Your task to perform on an android device: Open Chrome and go to the settings page Image 0: 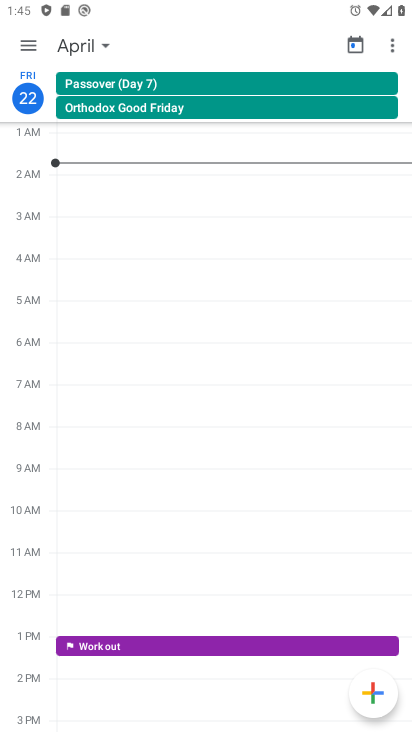
Step 0: press home button
Your task to perform on an android device: Open Chrome and go to the settings page Image 1: 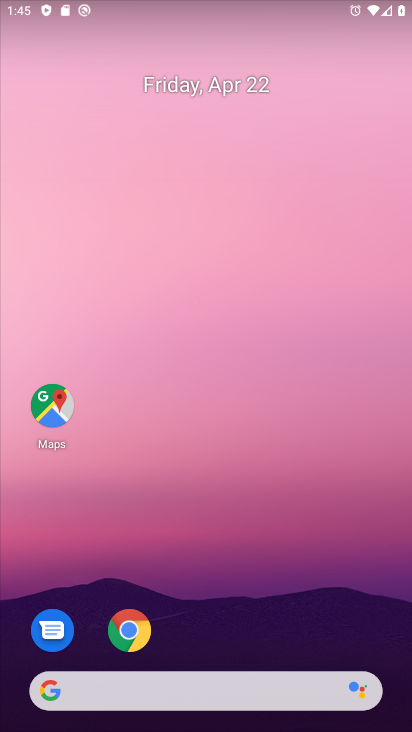
Step 1: drag from (367, 438) to (314, 155)
Your task to perform on an android device: Open Chrome and go to the settings page Image 2: 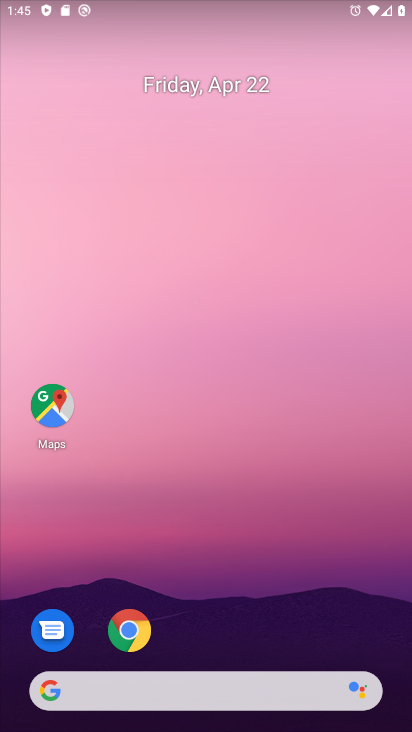
Step 2: drag from (228, 557) to (228, 277)
Your task to perform on an android device: Open Chrome and go to the settings page Image 3: 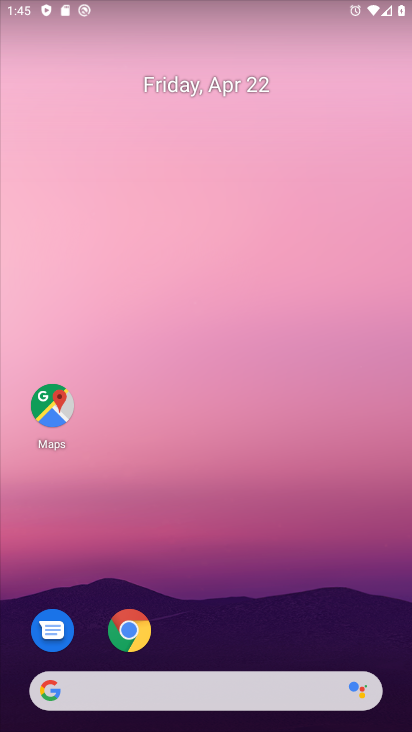
Step 3: drag from (265, 576) to (253, 174)
Your task to perform on an android device: Open Chrome and go to the settings page Image 4: 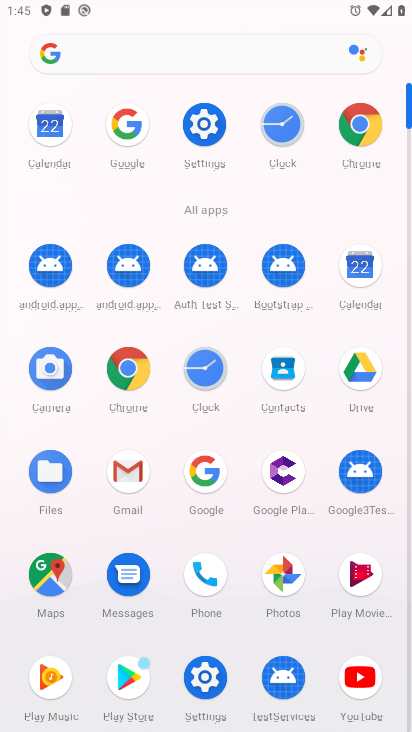
Step 4: click (368, 124)
Your task to perform on an android device: Open Chrome and go to the settings page Image 5: 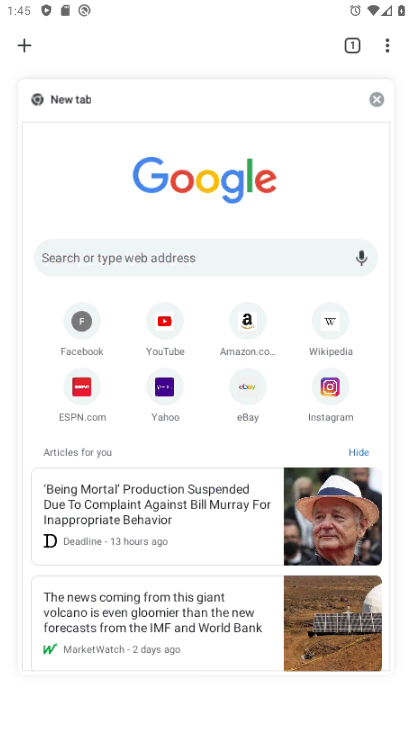
Step 5: task complete